Your task to perform on an android device: Open internet settings Image 0: 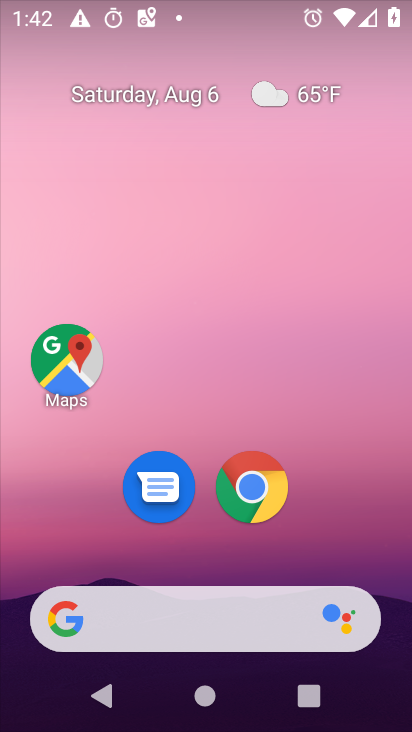
Step 0: drag from (212, 560) to (256, 12)
Your task to perform on an android device: Open internet settings Image 1: 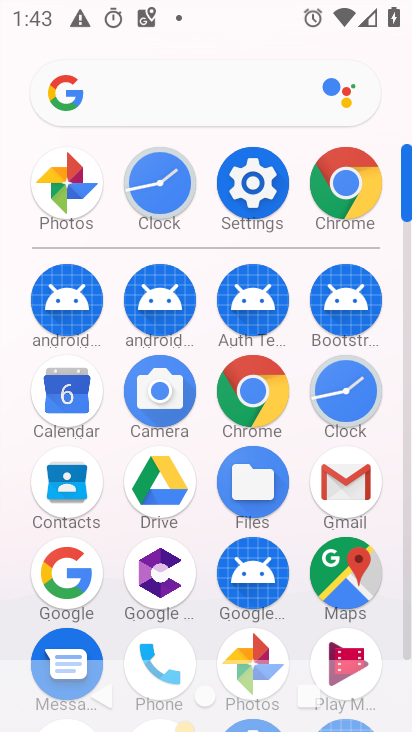
Step 1: click (243, 193)
Your task to perform on an android device: Open internet settings Image 2: 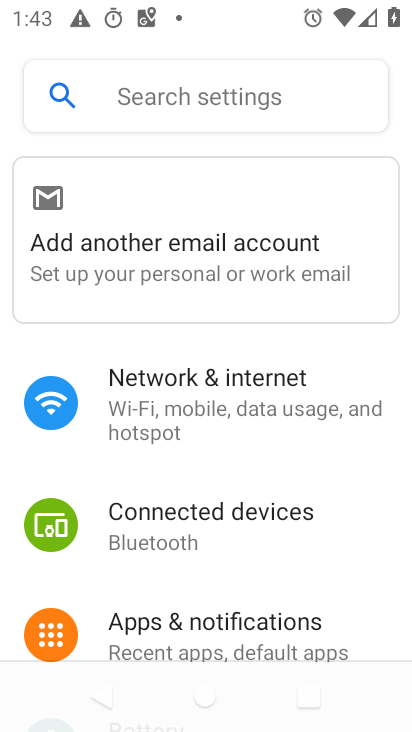
Step 2: click (199, 393)
Your task to perform on an android device: Open internet settings Image 3: 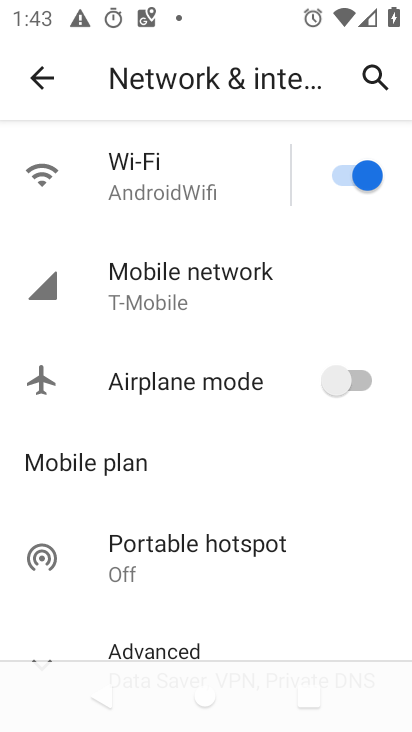
Step 3: task complete